Your task to perform on an android device: delete location history Image 0: 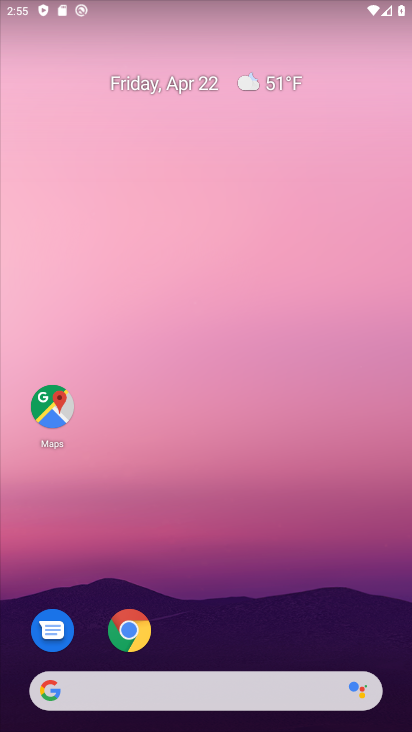
Step 0: drag from (269, 404) to (164, 3)
Your task to perform on an android device: delete location history Image 1: 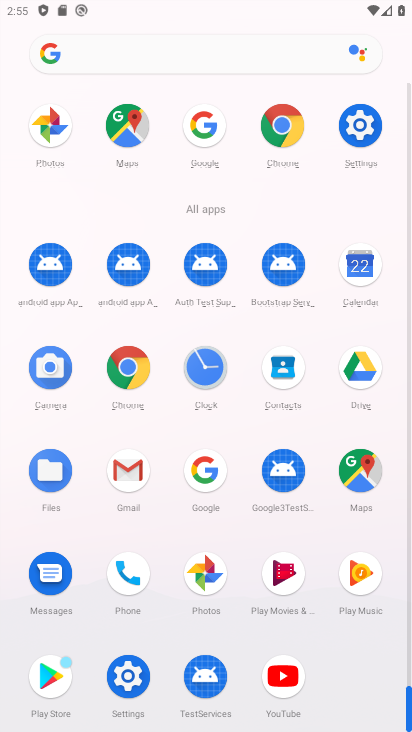
Step 1: drag from (6, 509) to (2, 292)
Your task to perform on an android device: delete location history Image 2: 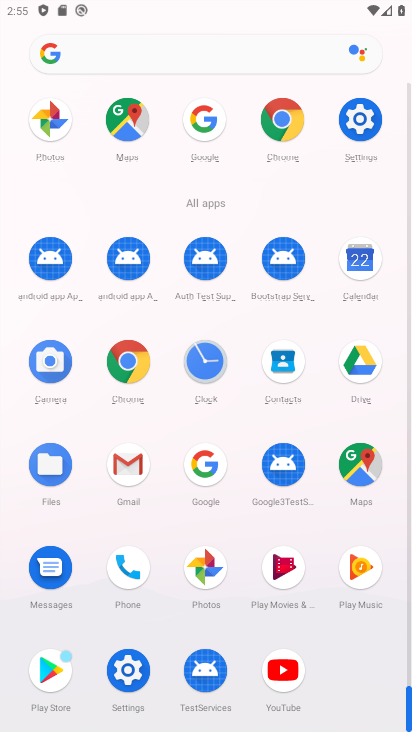
Step 2: click (126, 670)
Your task to perform on an android device: delete location history Image 3: 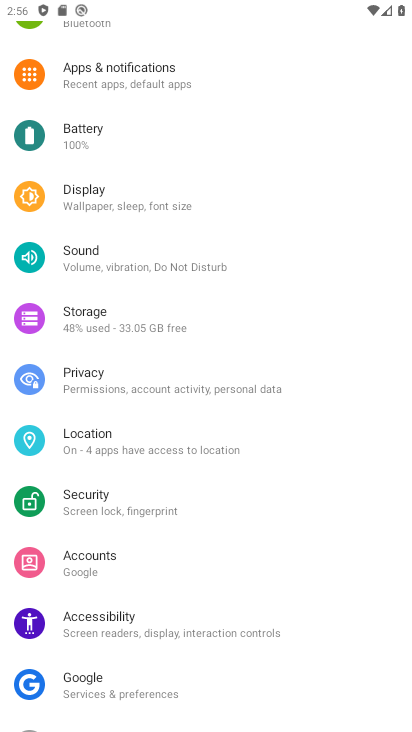
Step 3: click (129, 430)
Your task to perform on an android device: delete location history Image 4: 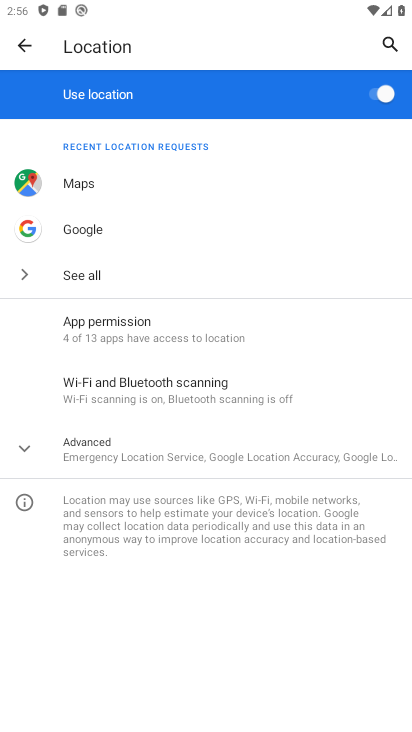
Step 4: click (129, 435)
Your task to perform on an android device: delete location history Image 5: 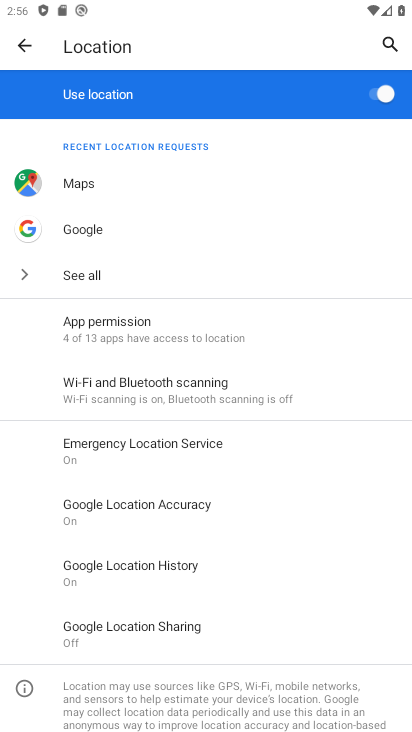
Step 5: click (160, 565)
Your task to perform on an android device: delete location history Image 6: 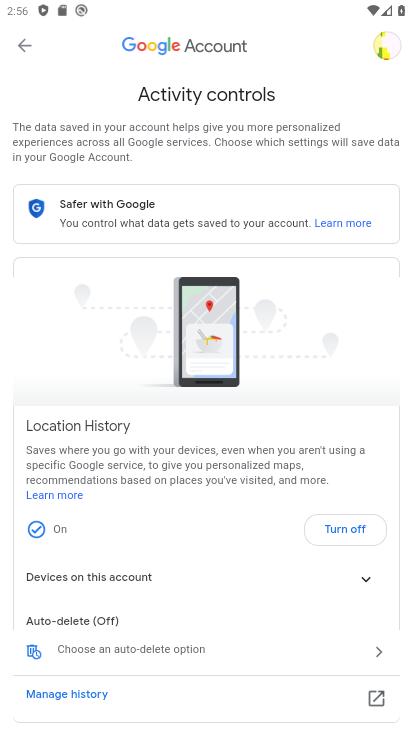
Step 6: click (76, 646)
Your task to perform on an android device: delete location history Image 7: 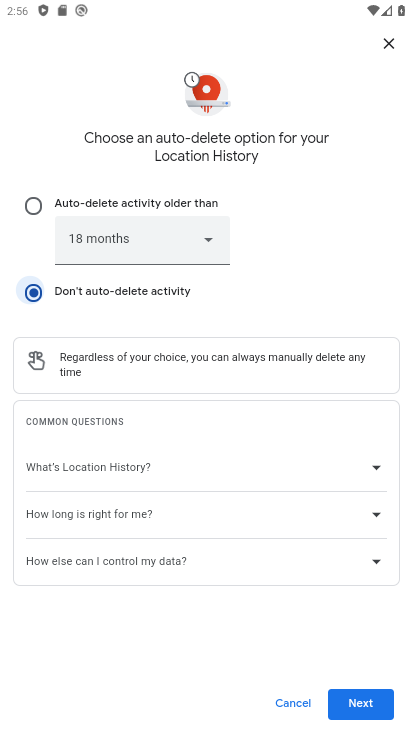
Step 7: click (367, 694)
Your task to perform on an android device: delete location history Image 8: 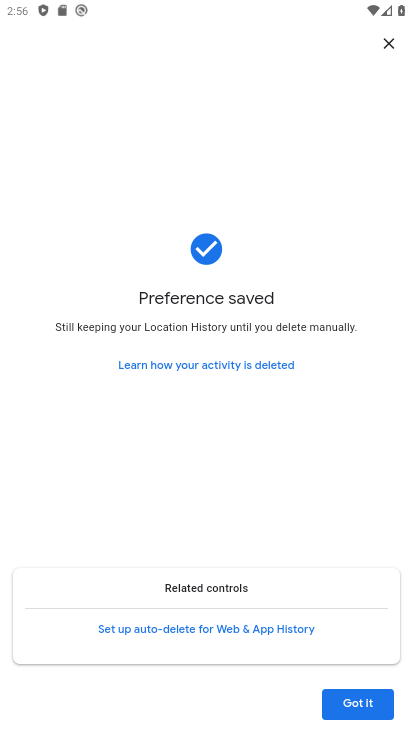
Step 8: click (350, 698)
Your task to perform on an android device: delete location history Image 9: 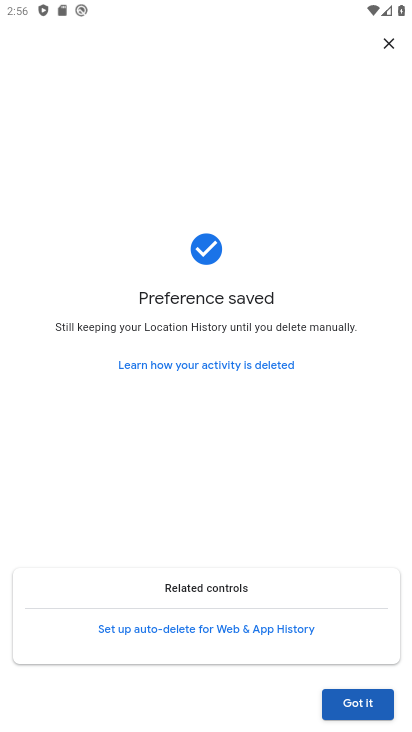
Step 9: click (353, 701)
Your task to perform on an android device: delete location history Image 10: 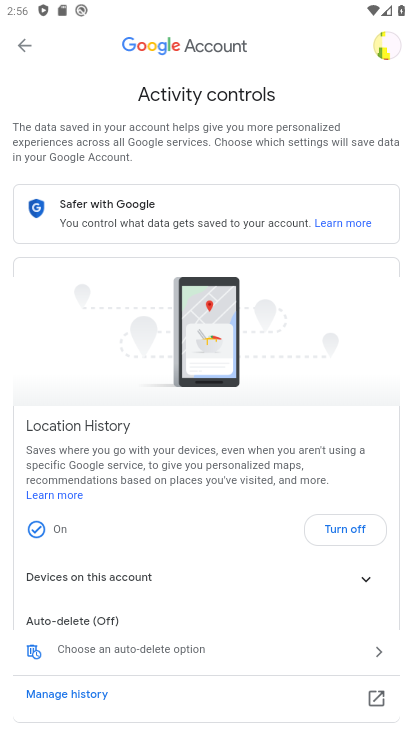
Step 10: click (40, 647)
Your task to perform on an android device: delete location history Image 11: 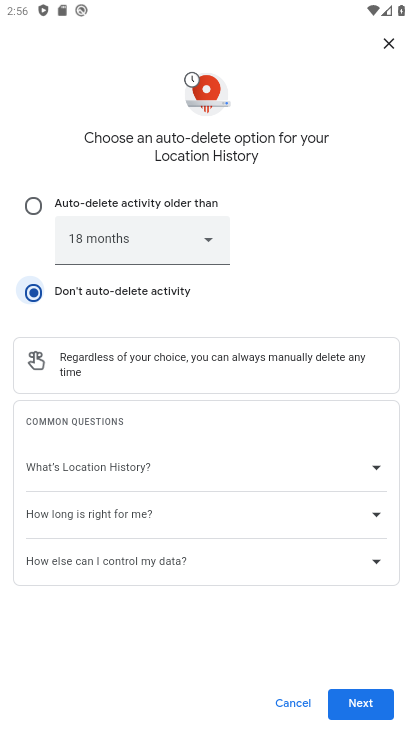
Step 11: click (29, 209)
Your task to perform on an android device: delete location history Image 12: 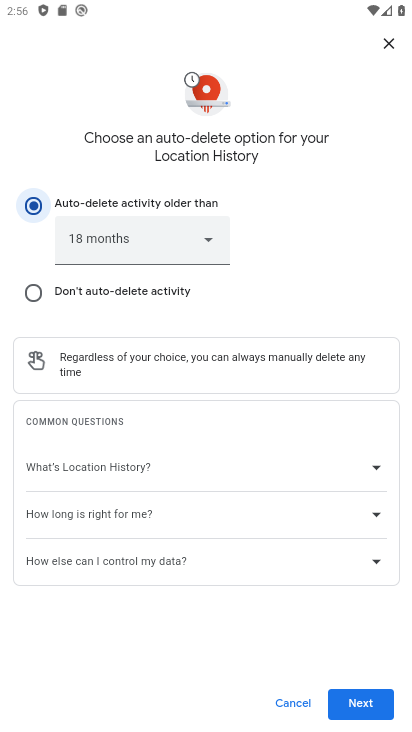
Step 12: click (367, 701)
Your task to perform on an android device: delete location history Image 13: 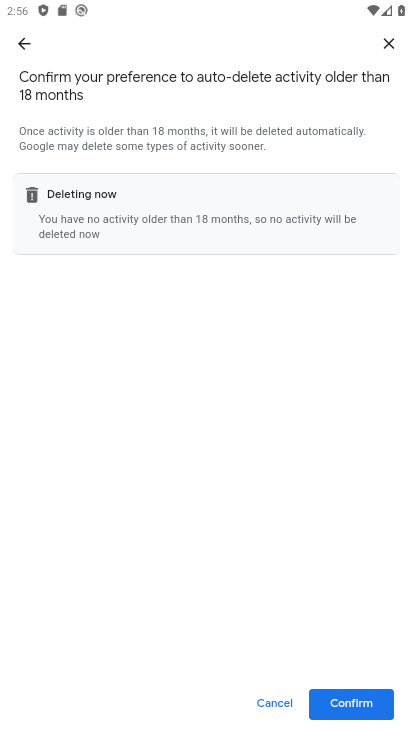
Step 13: click (367, 701)
Your task to perform on an android device: delete location history Image 14: 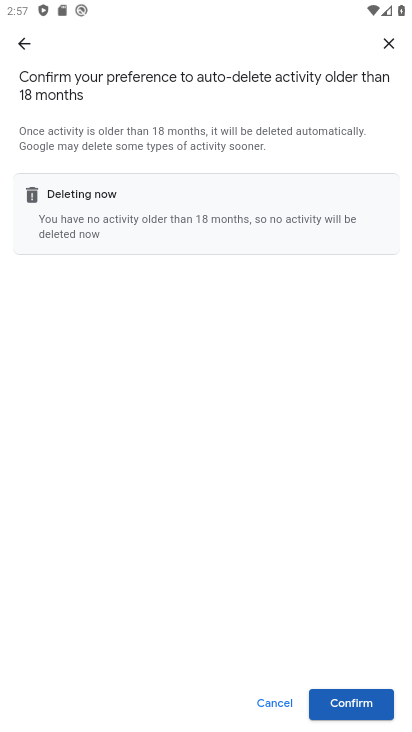
Step 14: click (367, 701)
Your task to perform on an android device: delete location history Image 15: 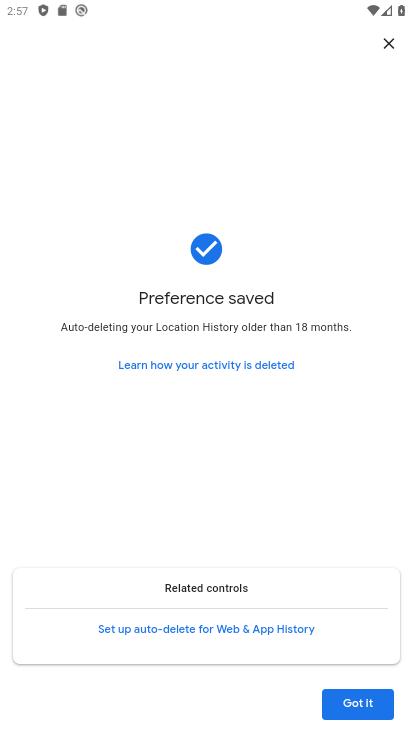
Step 15: task complete